Your task to perform on an android device: add a label to a message in the gmail app Image 0: 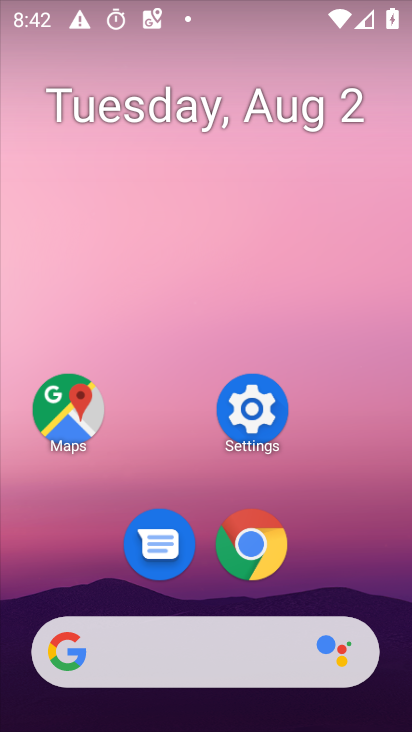
Step 0: drag from (199, 653) to (328, 52)
Your task to perform on an android device: add a label to a message in the gmail app Image 1: 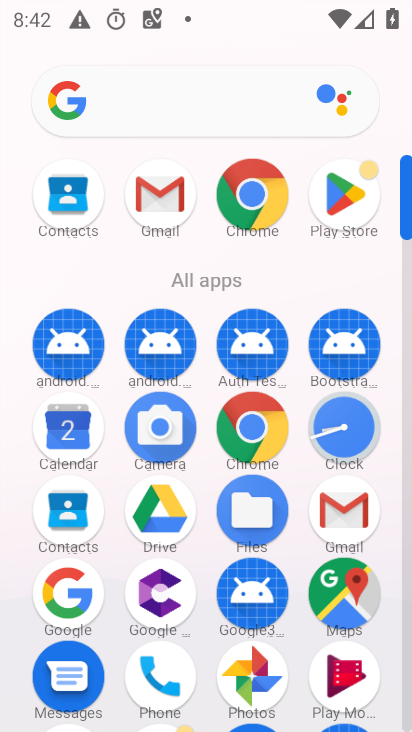
Step 1: click (343, 509)
Your task to perform on an android device: add a label to a message in the gmail app Image 2: 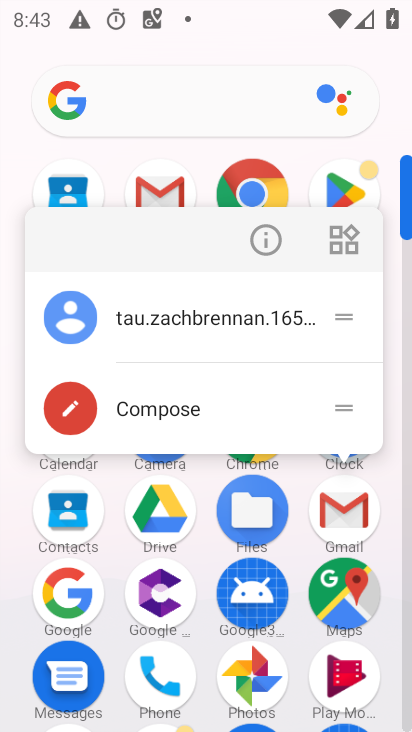
Step 2: click (343, 517)
Your task to perform on an android device: add a label to a message in the gmail app Image 3: 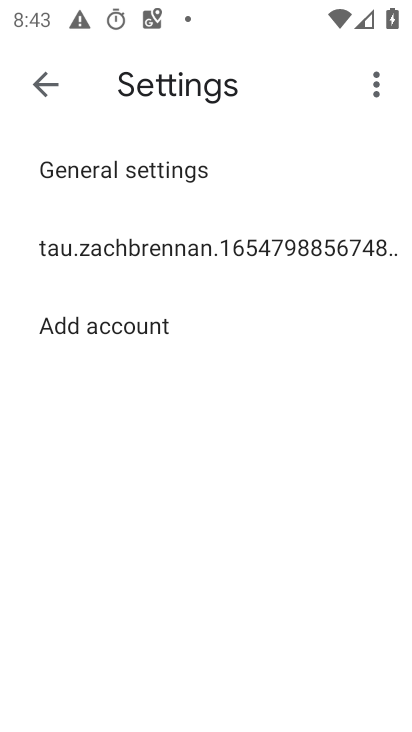
Step 3: click (47, 84)
Your task to perform on an android device: add a label to a message in the gmail app Image 4: 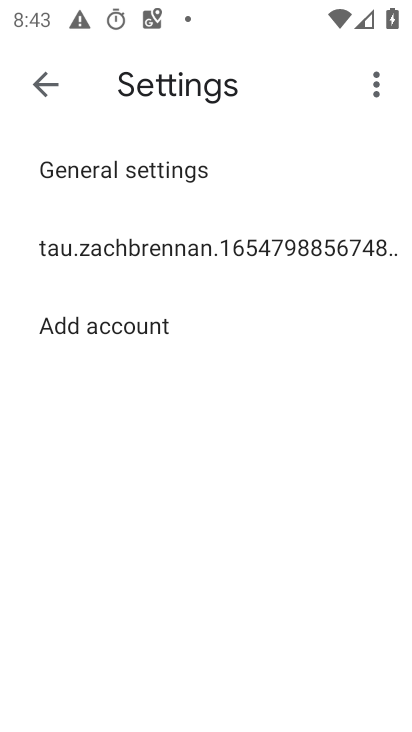
Step 4: click (47, 84)
Your task to perform on an android device: add a label to a message in the gmail app Image 5: 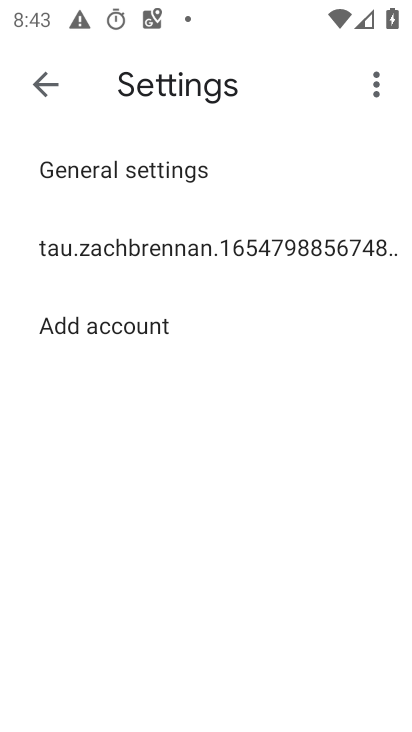
Step 5: click (45, 81)
Your task to perform on an android device: add a label to a message in the gmail app Image 6: 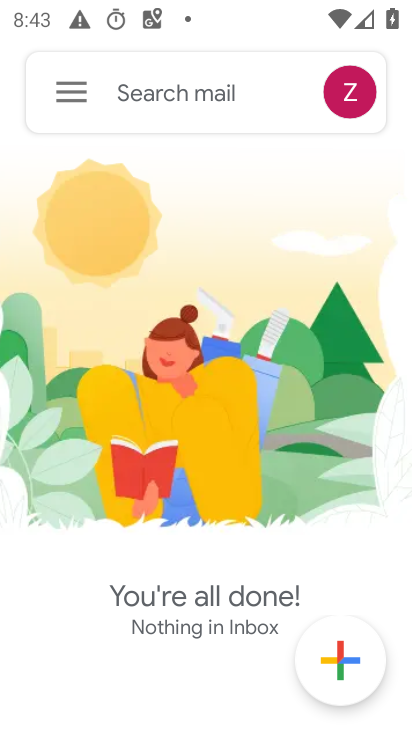
Step 6: task complete